Your task to perform on an android device: Open settings Image 0: 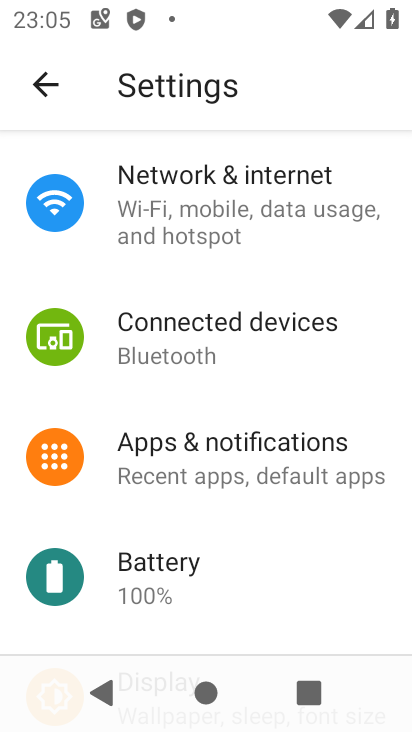
Step 0: drag from (248, 519) to (185, 100)
Your task to perform on an android device: Open settings Image 1: 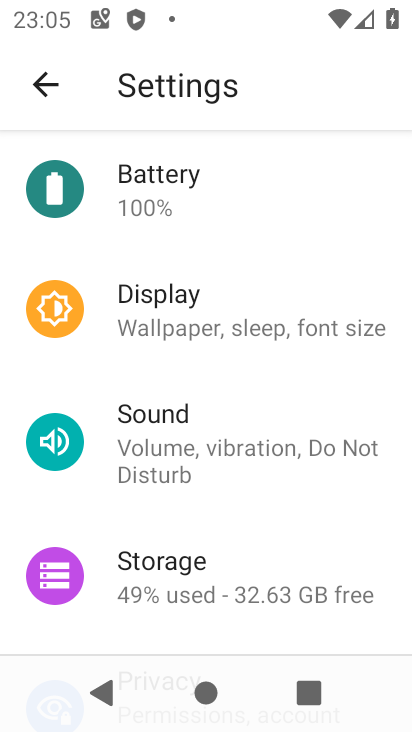
Step 1: task complete